Your task to perform on an android device: Find coffee shops on Maps Image 0: 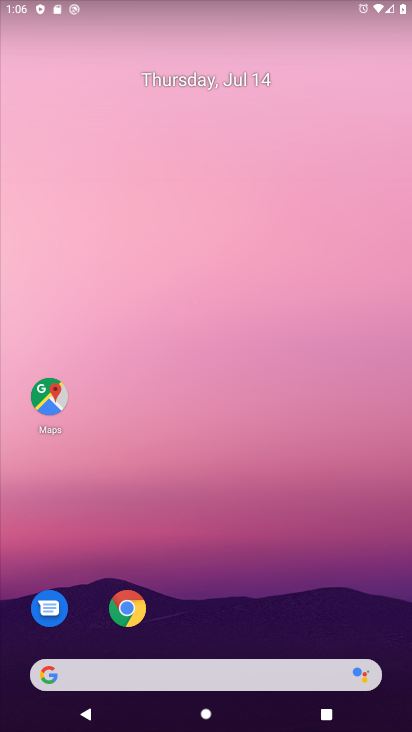
Step 0: press home button
Your task to perform on an android device: Find coffee shops on Maps Image 1: 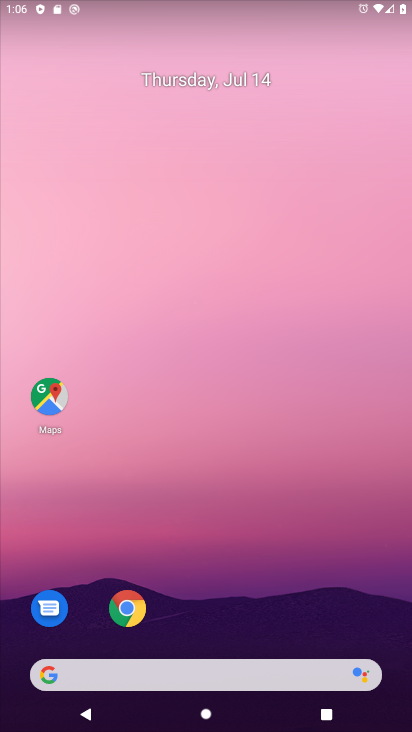
Step 1: drag from (349, 576) to (337, 106)
Your task to perform on an android device: Find coffee shops on Maps Image 2: 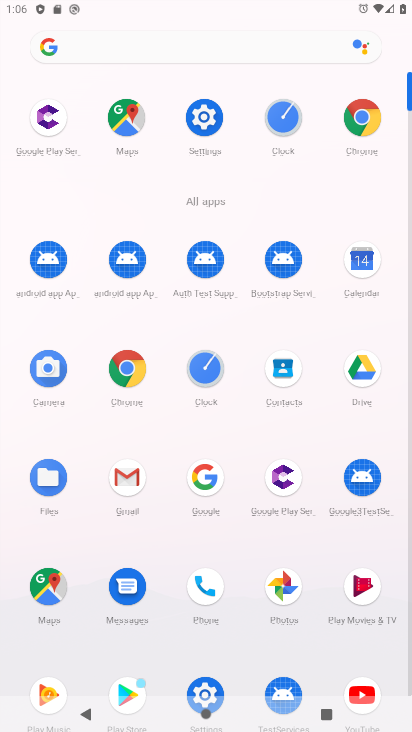
Step 2: click (41, 579)
Your task to perform on an android device: Find coffee shops on Maps Image 3: 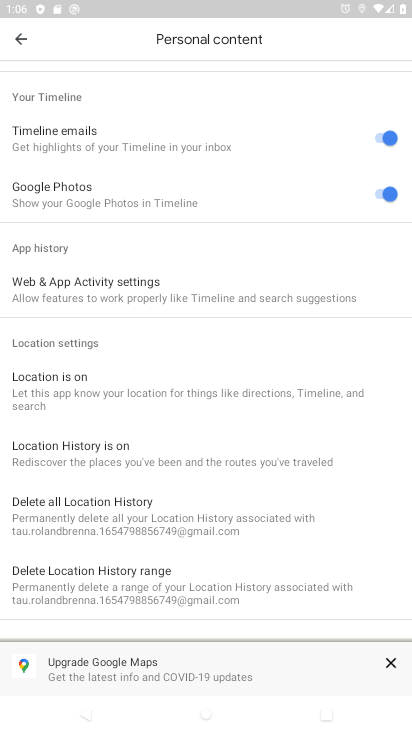
Step 3: click (27, 37)
Your task to perform on an android device: Find coffee shops on Maps Image 4: 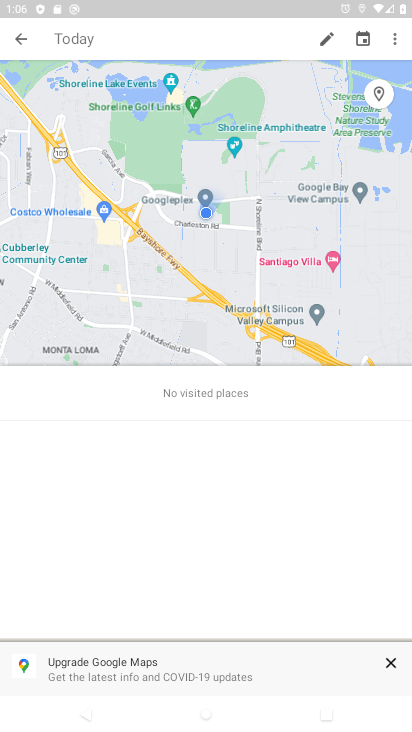
Step 4: click (20, 36)
Your task to perform on an android device: Find coffee shops on Maps Image 5: 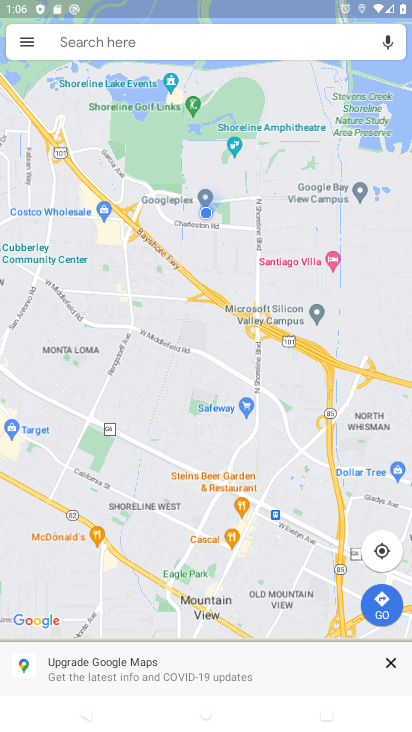
Step 5: click (122, 39)
Your task to perform on an android device: Find coffee shops on Maps Image 6: 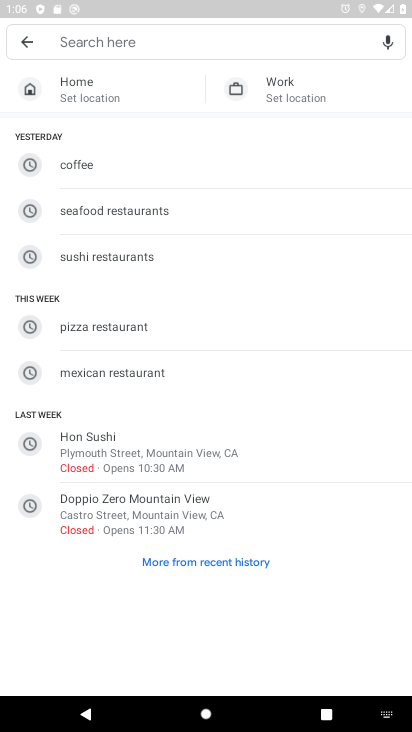
Step 6: click (122, 39)
Your task to perform on an android device: Find coffee shops on Maps Image 7: 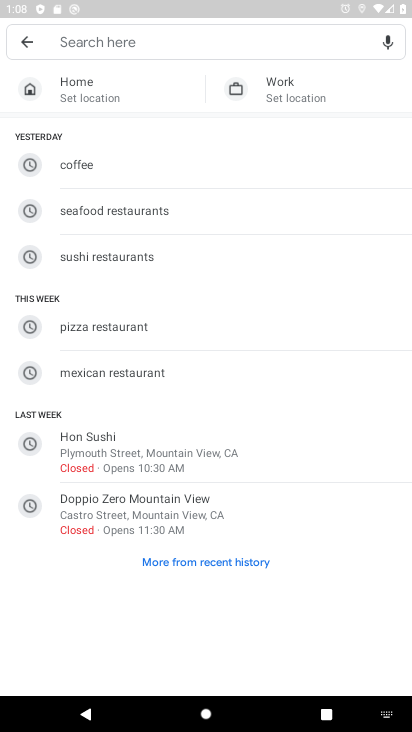
Step 7: type "coffee shops"
Your task to perform on an android device: Find coffee shops on Maps Image 8: 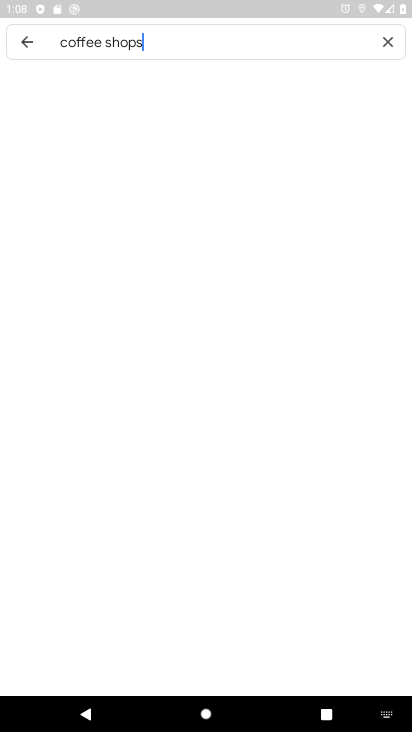
Step 8: type ""
Your task to perform on an android device: Find coffee shops on Maps Image 9: 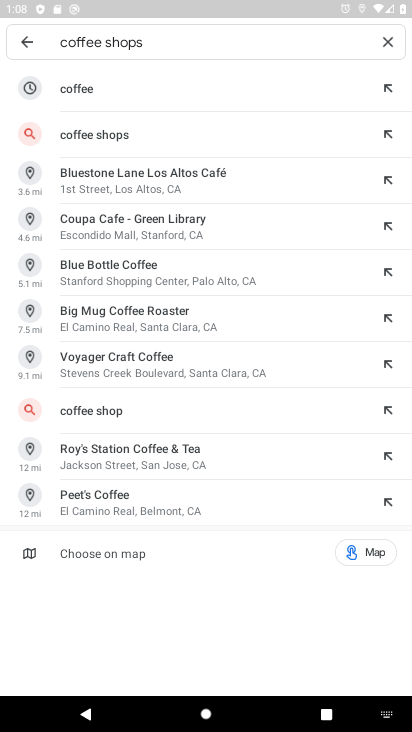
Step 9: click (207, 92)
Your task to perform on an android device: Find coffee shops on Maps Image 10: 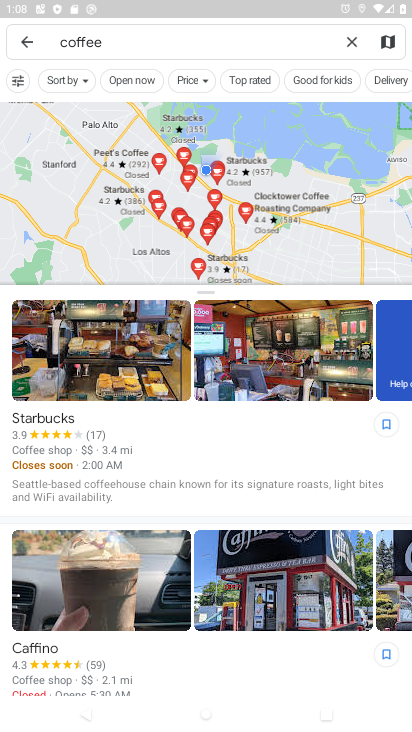
Step 10: task complete